Your task to perform on an android device: Open Amazon Image 0: 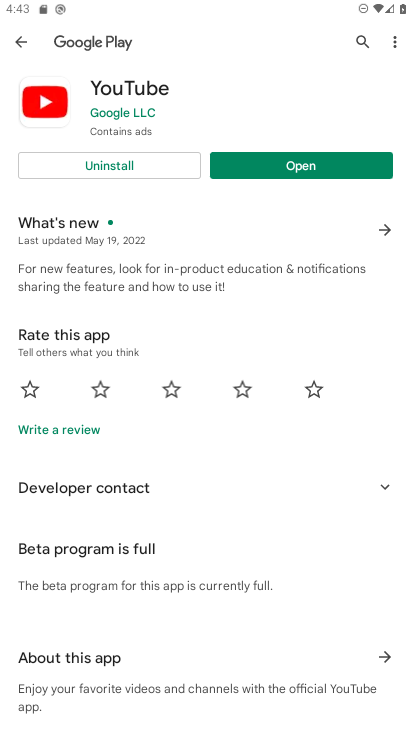
Step 0: press home button
Your task to perform on an android device: Open Amazon Image 1: 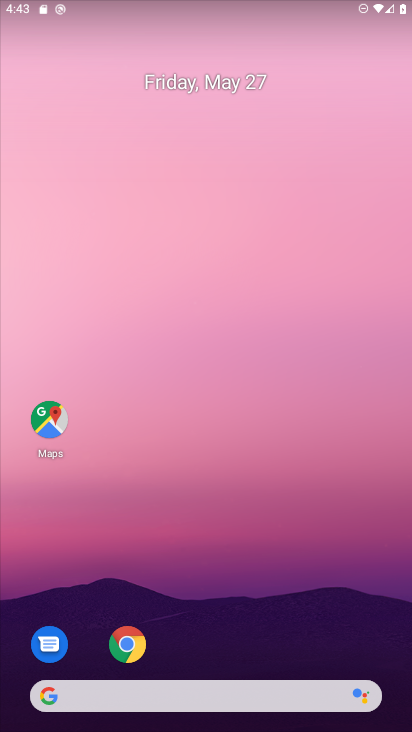
Step 1: click (124, 654)
Your task to perform on an android device: Open Amazon Image 2: 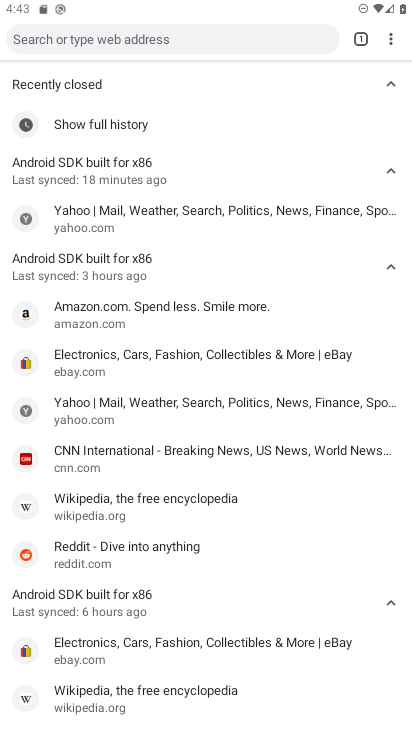
Step 2: click (127, 649)
Your task to perform on an android device: Open Amazon Image 3: 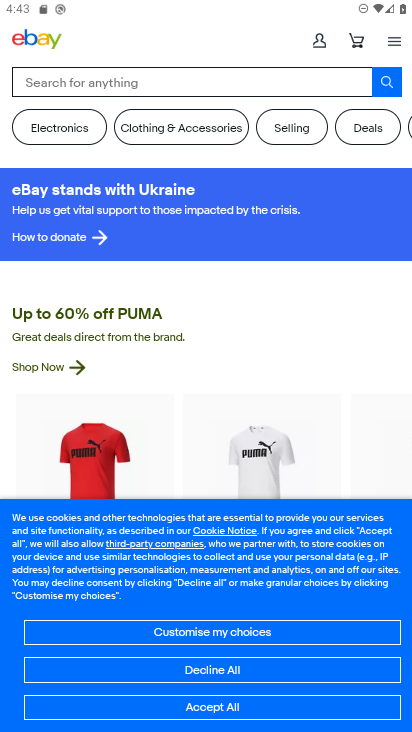
Step 3: press back button
Your task to perform on an android device: Open Amazon Image 4: 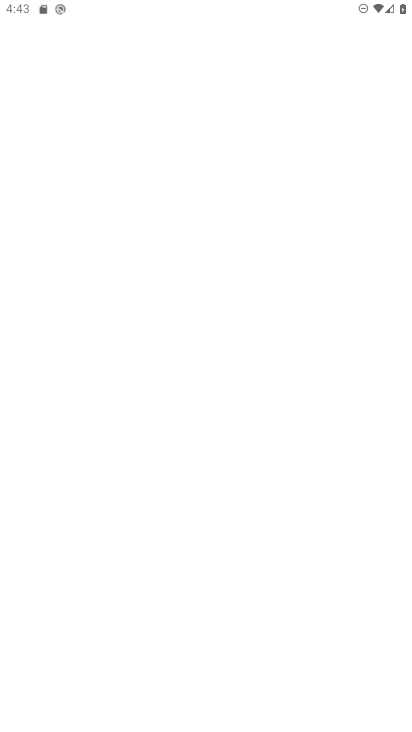
Step 4: press back button
Your task to perform on an android device: Open Amazon Image 5: 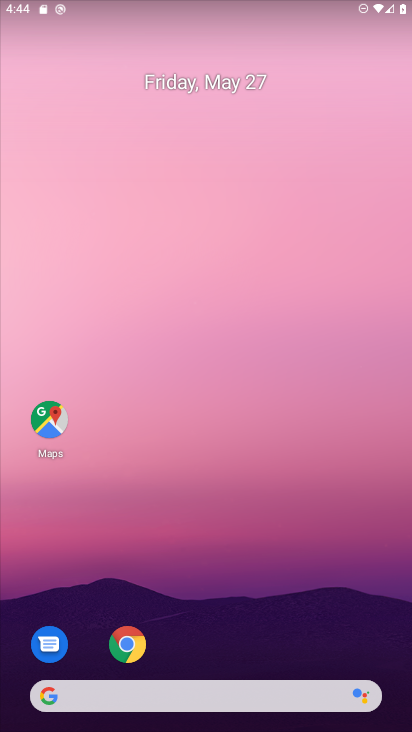
Step 5: click (121, 640)
Your task to perform on an android device: Open Amazon Image 6: 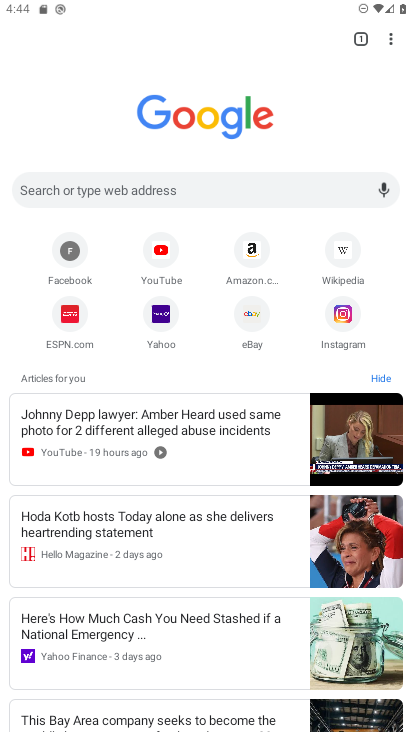
Step 6: click (235, 238)
Your task to perform on an android device: Open Amazon Image 7: 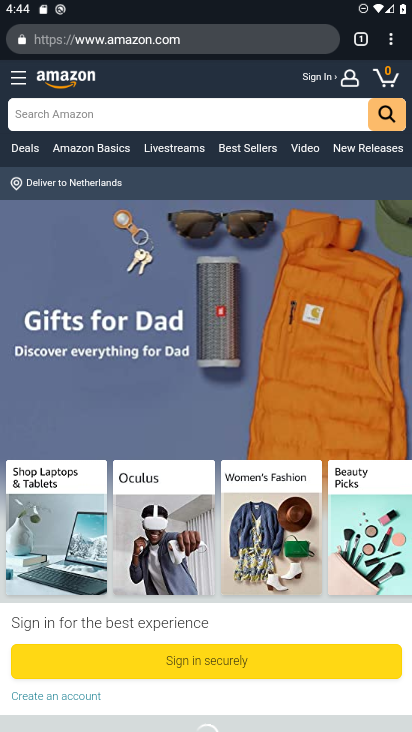
Step 7: click (235, 238)
Your task to perform on an android device: Open Amazon Image 8: 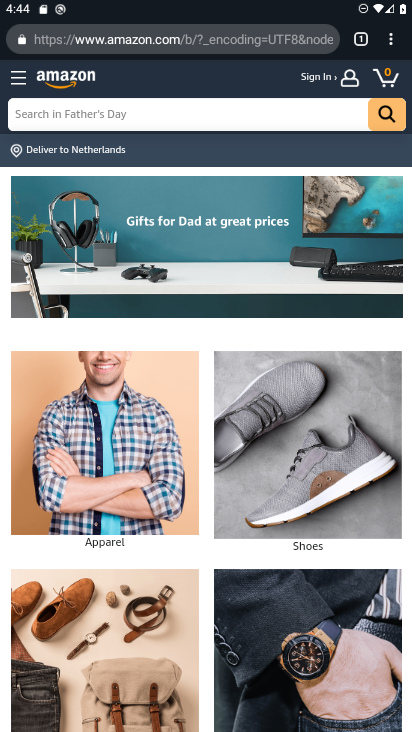
Step 8: task complete